Your task to perform on an android device: install app "Microsoft Authenticator" Image 0: 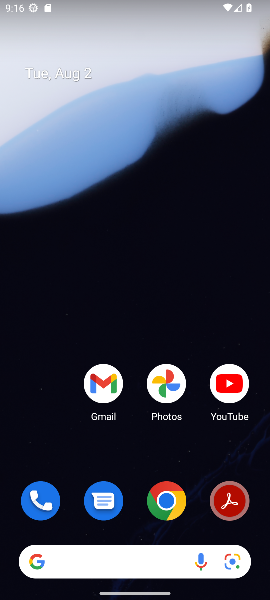
Step 0: drag from (135, 479) to (161, 61)
Your task to perform on an android device: install app "Microsoft Authenticator" Image 1: 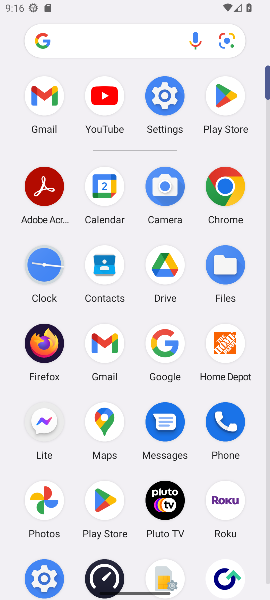
Step 1: click (224, 83)
Your task to perform on an android device: install app "Microsoft Authenticator" Image 2: 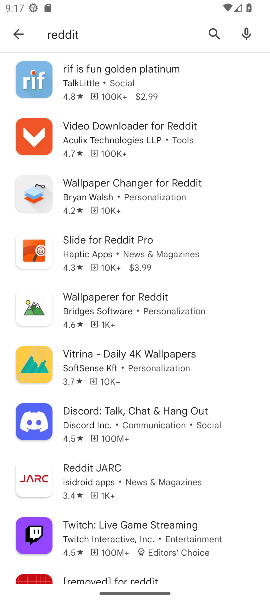
Step 2: drag from (116, 170) to (157, 505)
Your task to perform on an android device: install app "Microsoft Authenticator" Image 3: 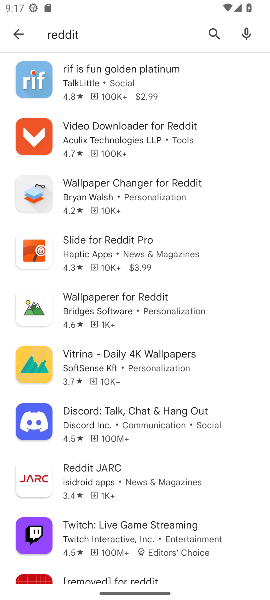
Step 3: drag from (156, 158) to (140, 574)
Your task to perform on an android device: install app "Microsoft Authenticator" Image 4: 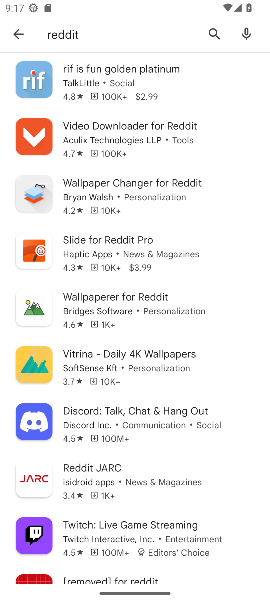
Step 4: drag from (222, 599) to (143, 594)
Your task to perform on an android device: install app "Microsoft Authenticator" Image 5: 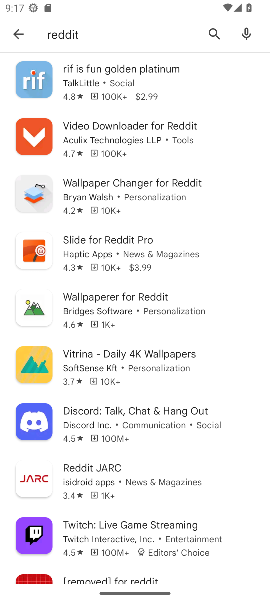
Step 5: click (217, 34)
Your task to perform on an android device: install app "Microsoft Authenticator" Image 6: 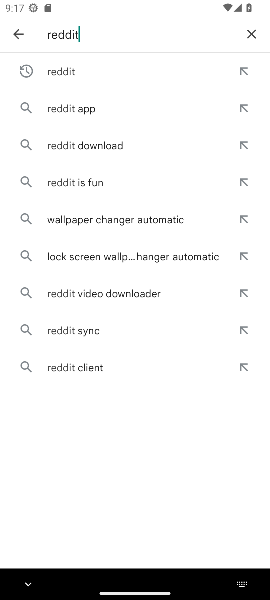
Step 6: click (246, 35)
Your task to perform on an android device: install app "Microsoft Authenticator" Image 7: 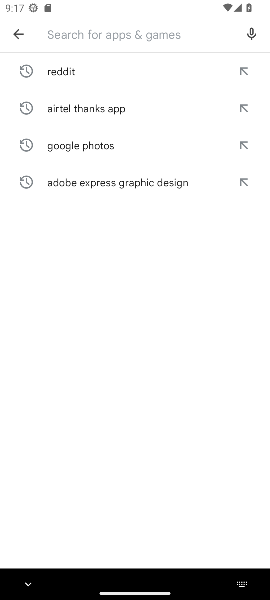
Step 7: type "Microsoft Authenticator"
Your task to perform on an android device: install app "Microsoft Authenticator" Image 8: 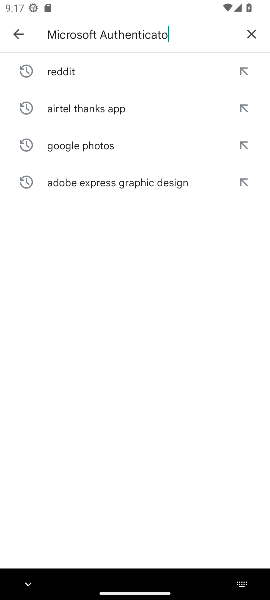
Step 8: type ""
Your task to perform on an android device: install app "Microsoft Authenticator" Image 9: 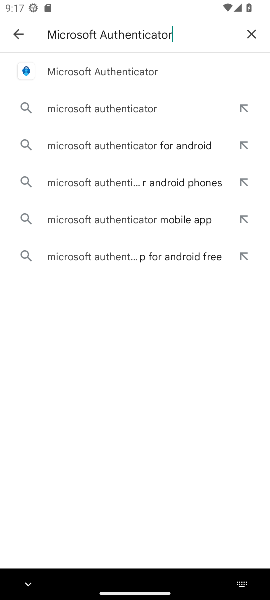
Step 9: click (68, 65)
Your task to perform on an android device: install app "Microsoft Authenticator" Image 10: 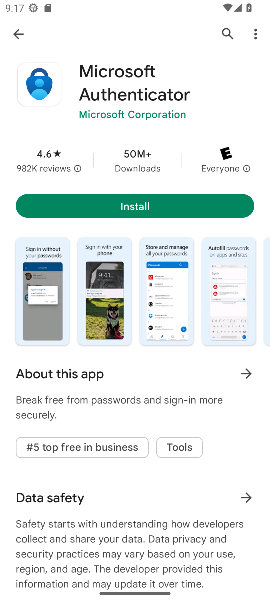
Step 10: drag from (151, 85) to (234, 539)
Your task to perform on an android device: install app "Microsoft Authenticator" Image 11: 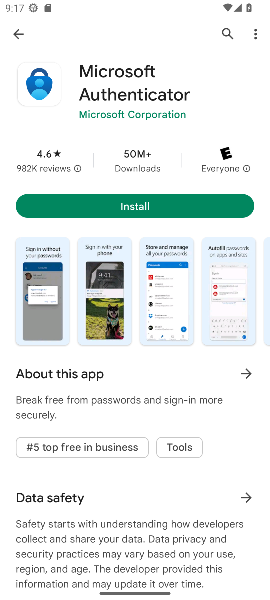
Step 11: drag from (145, 521) to (158, 172)
Your task to perform on an android device: install app "Microsoft Authenticator" Image 12: 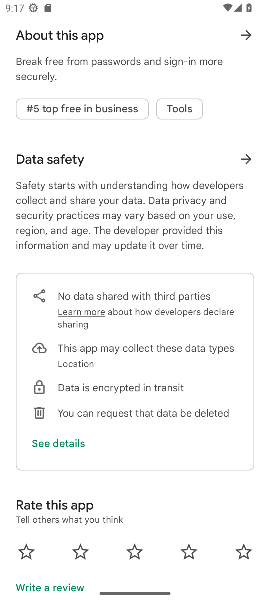
Step 12: drag from (164, 137) to (263, 195)
Your task to perform on an android device: install app "Microsoft Authenticator" Image 13: 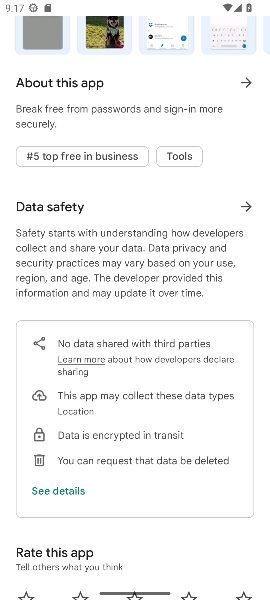
Step 13: drag from (189, 106) to (250, 597)
Your task to perform on an android device: install app "Microsoft Authenticator" Image 14: 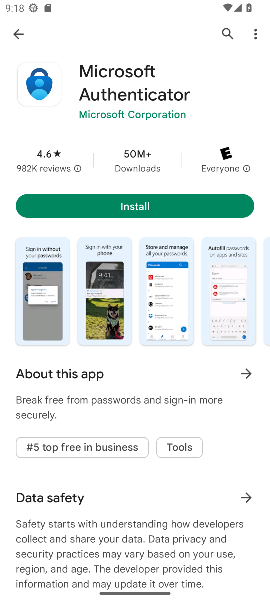
Step 14: click (144, 204)
Your task to perform on an android device: install app "Microsoft Authenticator" Image 15: 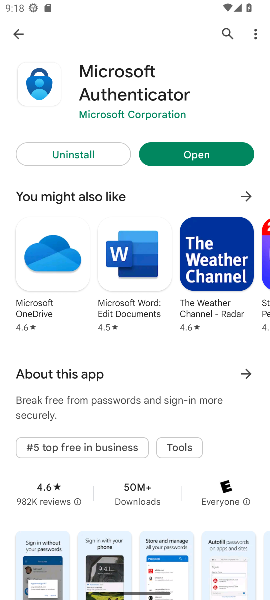
Step 15: task complete